Your task to perform on an android device: Open settings on Google Maps Image 0: 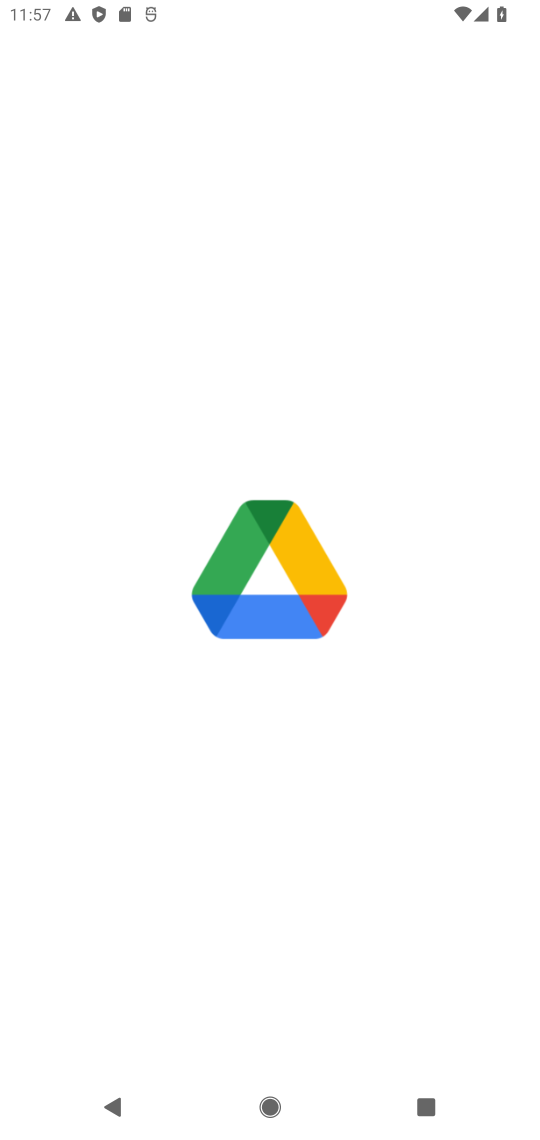
Step 0: press home button
Your task to perform on an android device: Open settings on Google Maps Image 1: 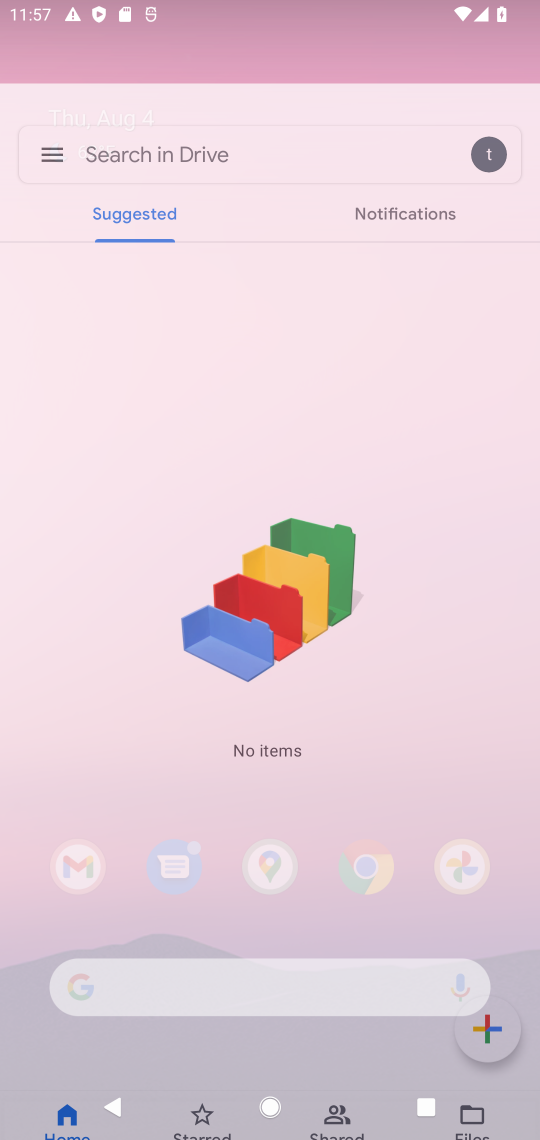
Step 1: drag from (300, 902) to (320, 293)
Your task to perform on an android device: Open settings on Google Maps Image 2: 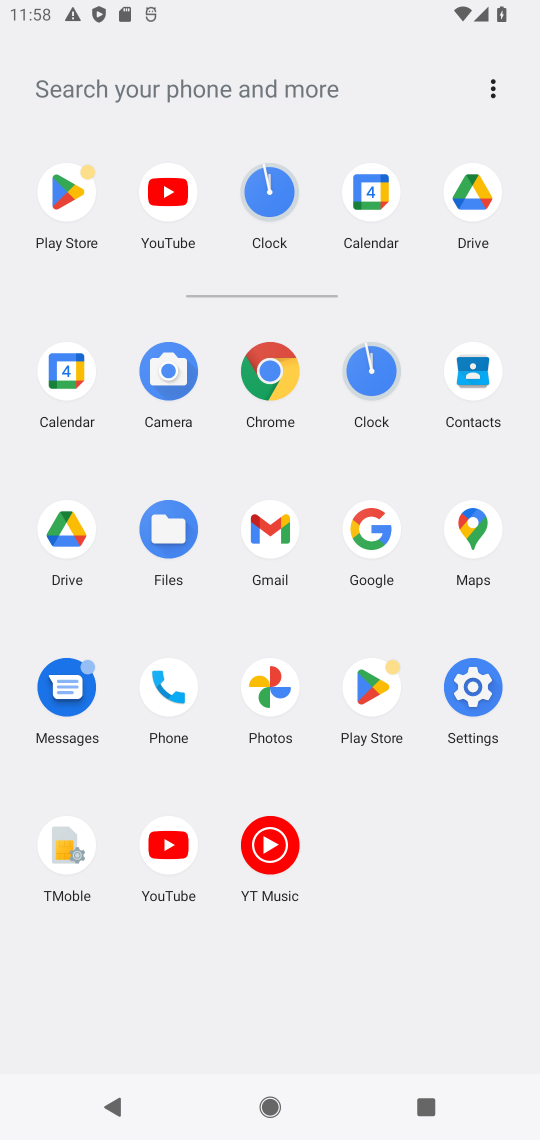
Step 2: click (354, 511)
Your task to perform on an android device: Open settings on Google Maps Image 3: 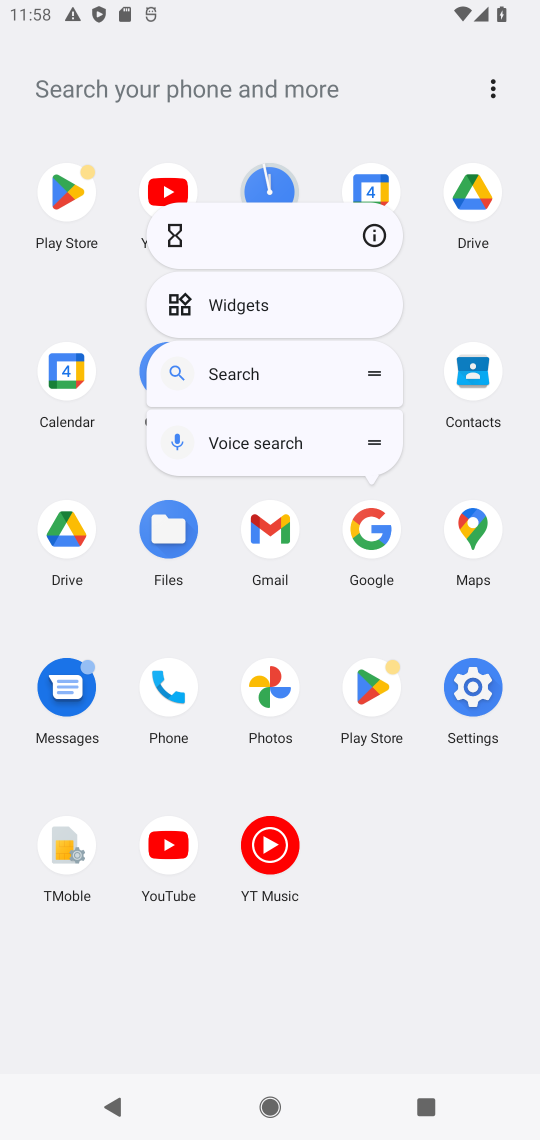
Step 3: click (373, 242)
Your task to perform on an android device: Open settings on Google Maps Image 4: 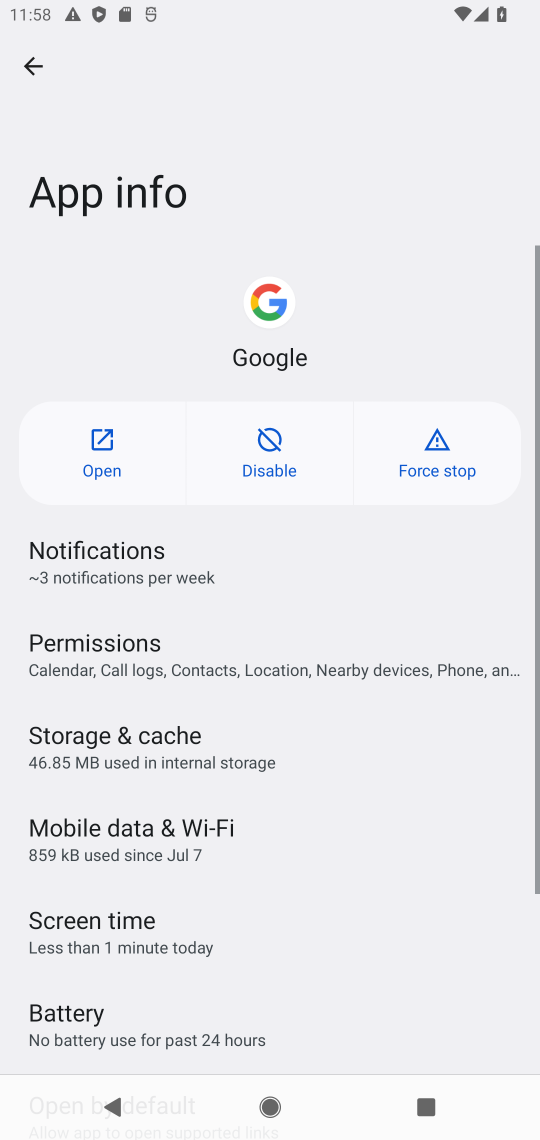
Step 4: click (106, 448)
Your task to perform on an android device: Open settings on Google Maps Image 5: 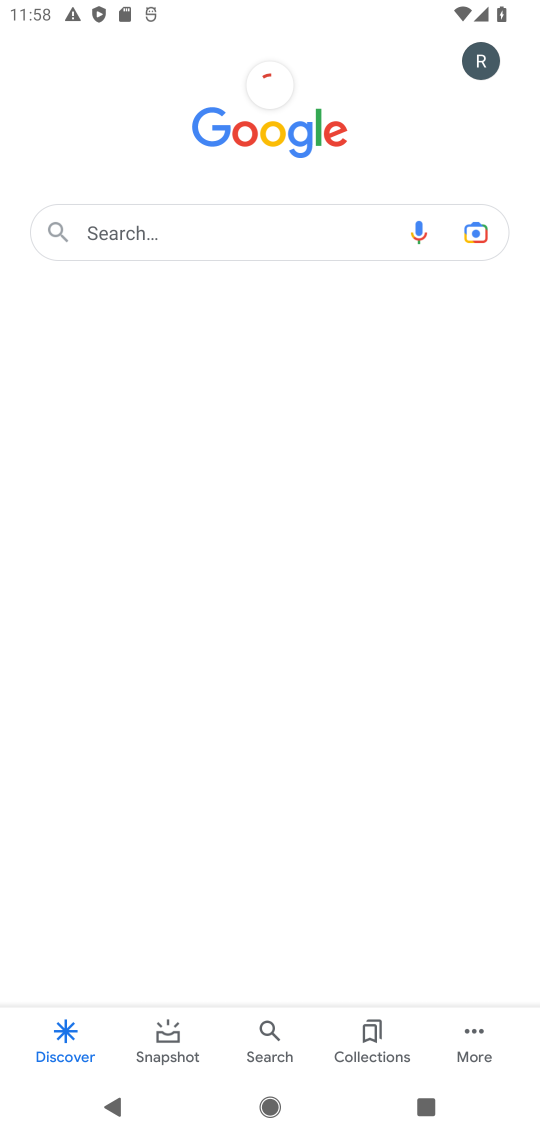
Step 5: drag from (290, 807) to (287, 407)
Your task to perform on an android device: Open settings on Google Maps Image 6: 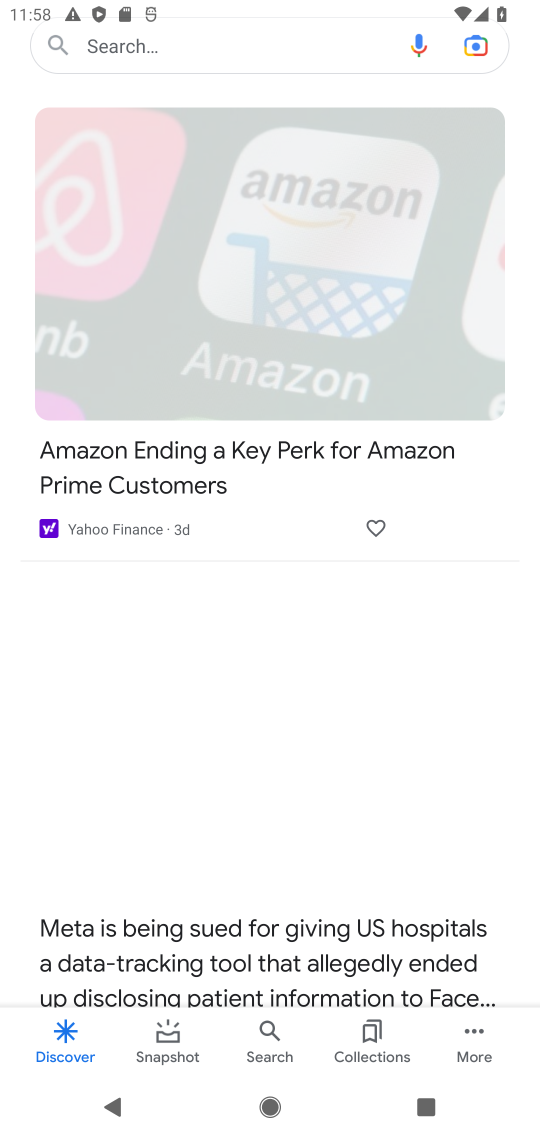
Step 6: drag from (361, 340) to (344, 888)
Your task to perform on an android device: Open settings on Google Maps Image 7: 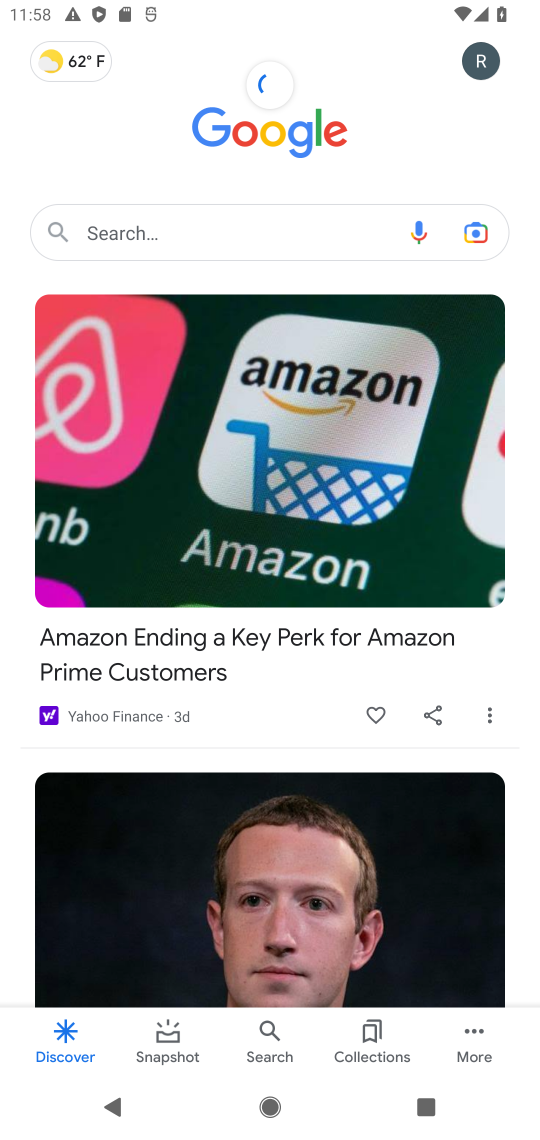
Step 7: press home button
Your task to perform on an android device: Open settings on Google Maps Image 8: 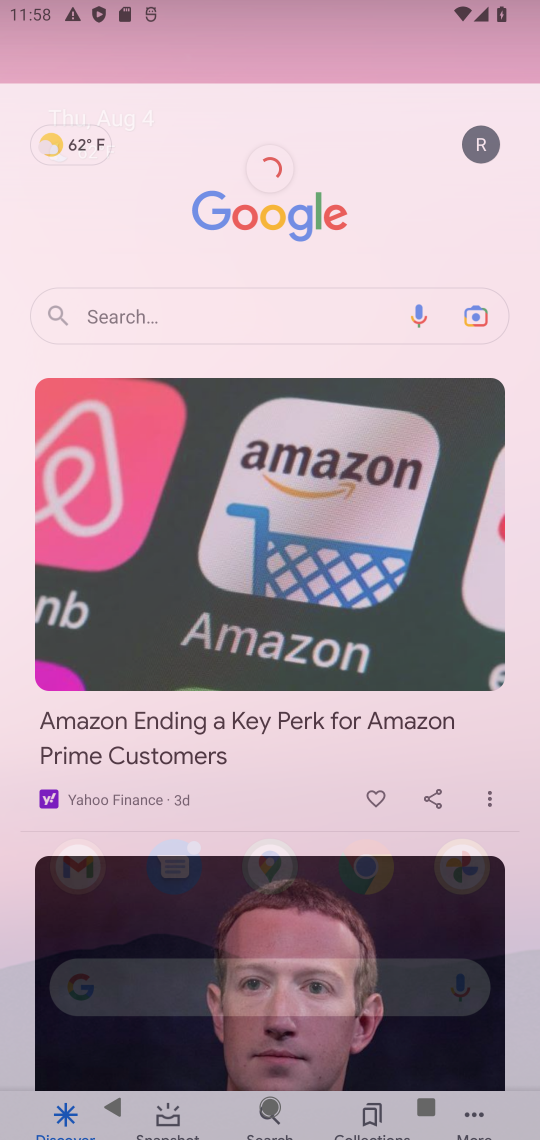
Step 8: drag from (419, 724) to (512, 278)
Your task to perform on an android device: Open settings on Google Maps Image 9: 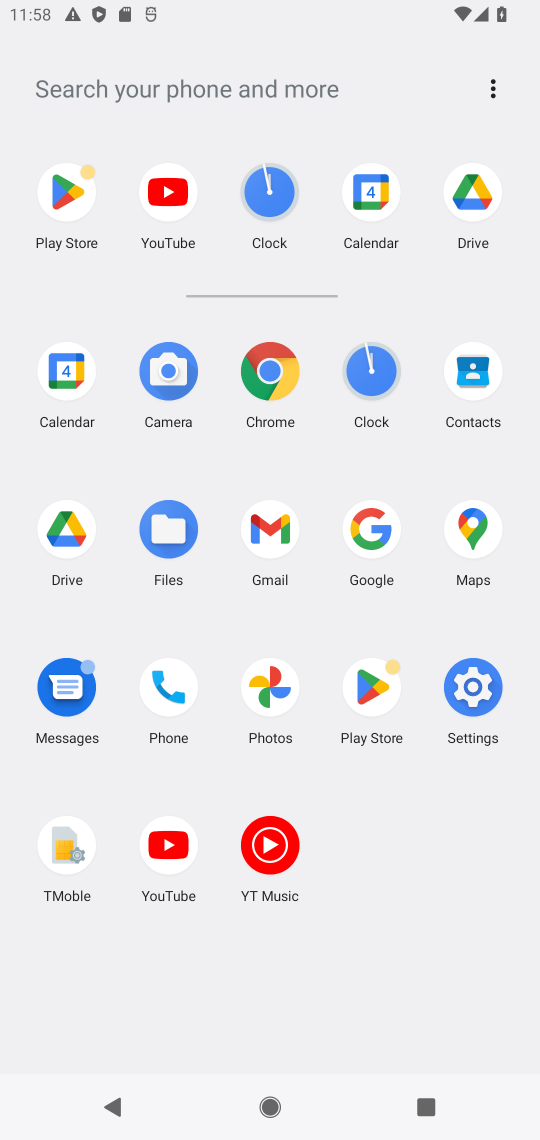
Step 9: click (482, 529)
Your task to perform on an android device: Open settings on Google Maps Image 10: 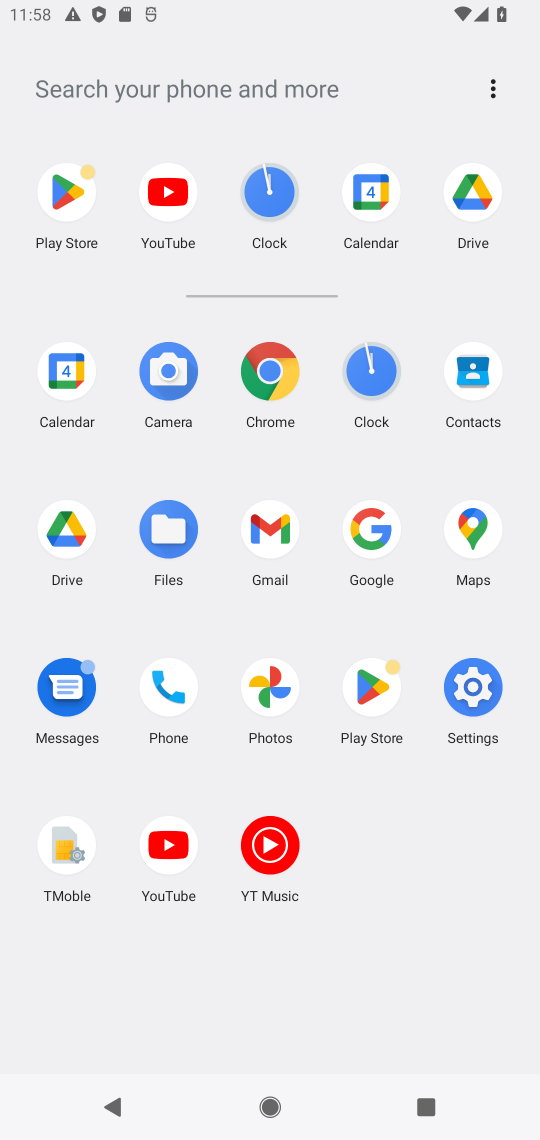
Step 10: click (480, 530)
Your task to perform on an android device: Open settings on Google Maps Image 11: 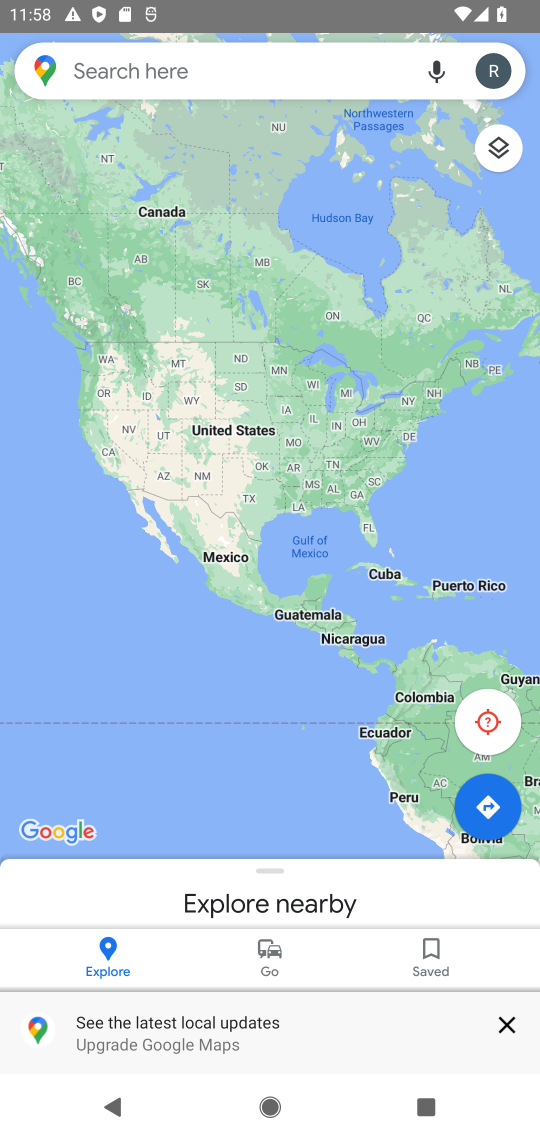
Step 11: click (503, 75)
Your task to perform on an android device: Open settings on Google Maps Image 12: 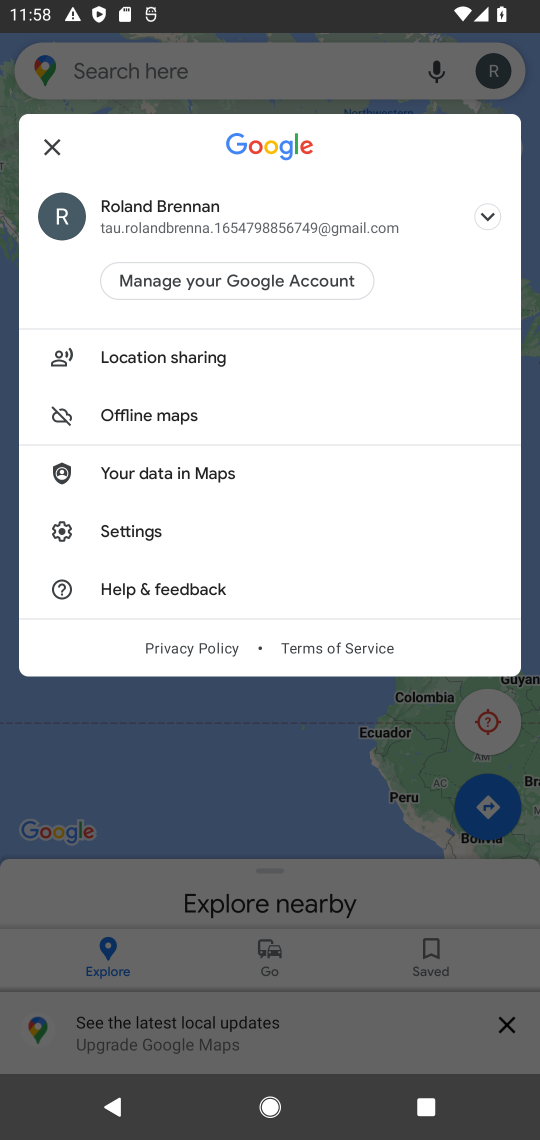
Step 12: click (194, 540)
Your task to perform on an android device: Open settings on Google Maps Image 13: 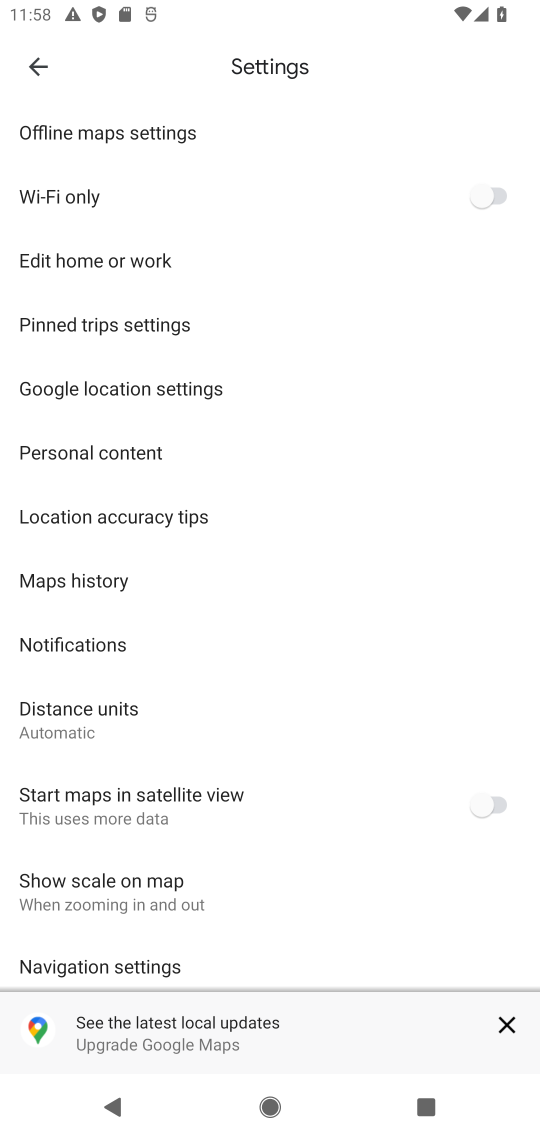
Step 13: task complete